Your task to perform on an android device: toggle data saver in the chrome app Image 0: 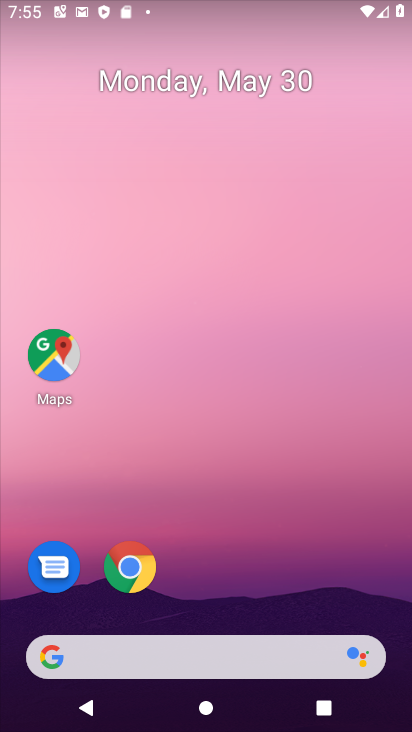
Step 0: click (133, 557)
Your task to perform on an android device: toggle data saver in the chrome app Image 1: 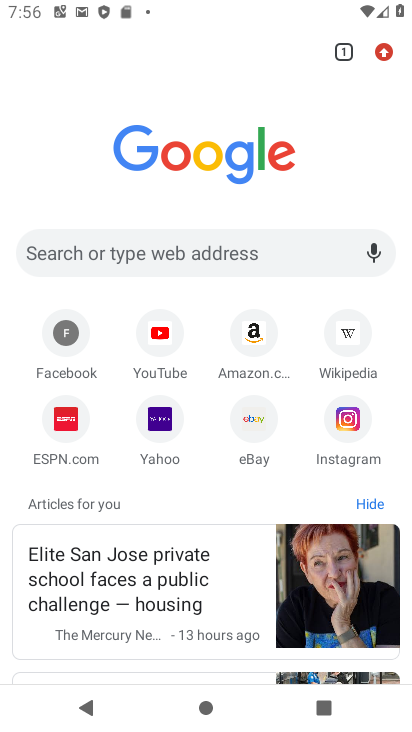
Step 1: press home button
Your task to perform on an android device: toggle data saver in the chrome app Image 2: 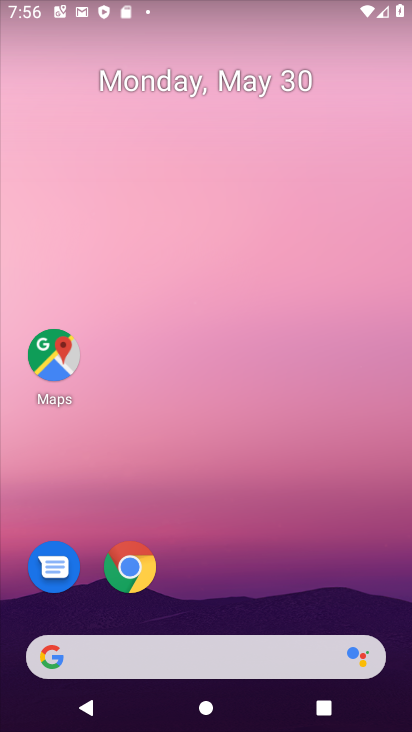
Step 2: click (119, 568)
Your task to perform on an android device: toggle data saver in the chrome app Image 3: 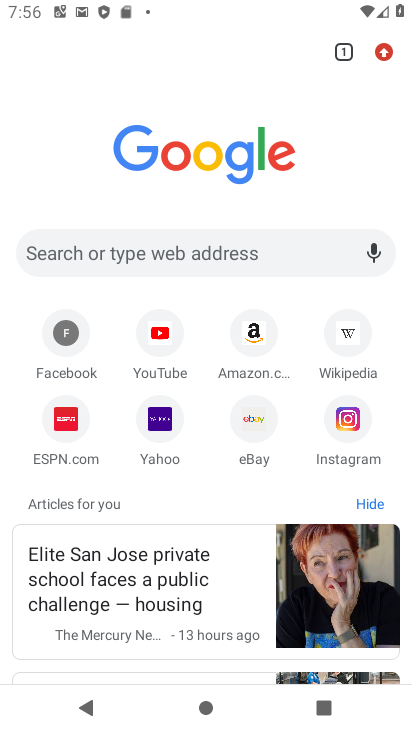
Step 3: click (387, 61)
Your task to perform on an android device: toggle data saver in the chrome app Image 4: 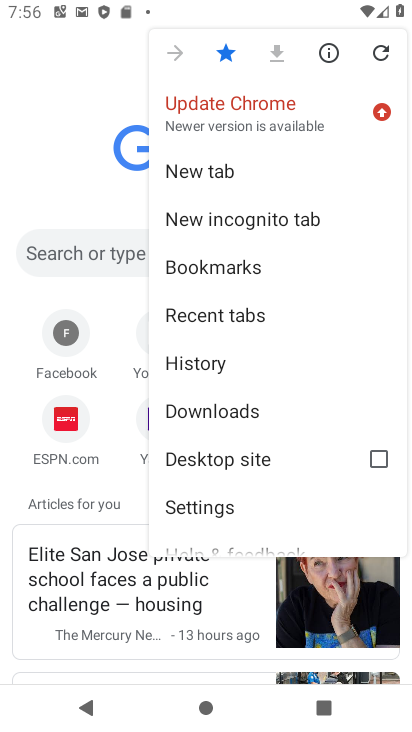
Step 4: click (244, 492)
Your task to perform on an android device: toggle data saver in the chrome app Image 5: 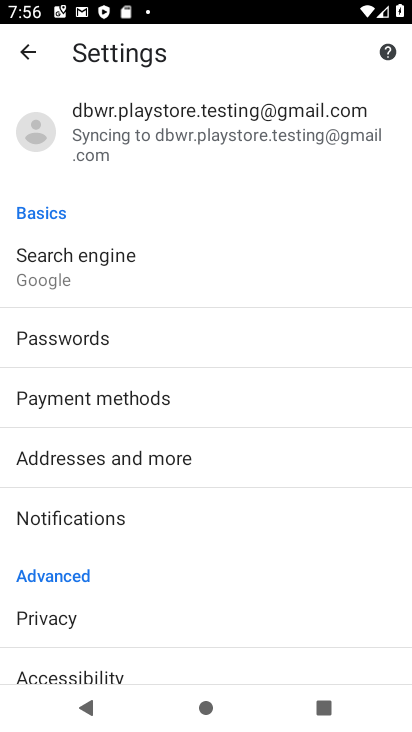
Step 5: drag from (184, 589) to (159, 180)
Your task to perform on an android device: toggle data saver in the chrome app Image 6: 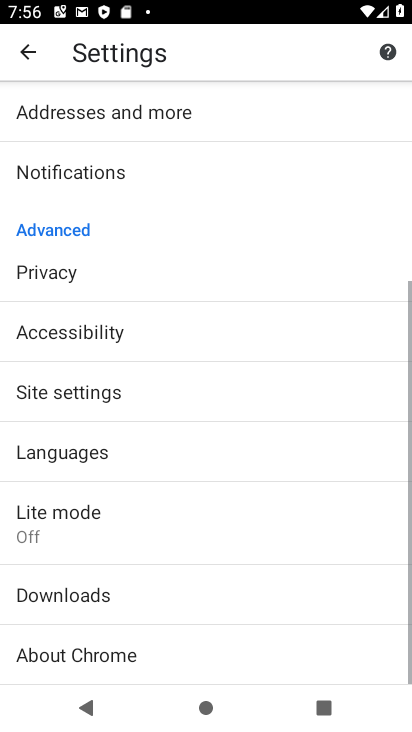
Step 6: click (169, 507)
Your task to perform on an android device: toggle data saver in the chrome app Image 7: 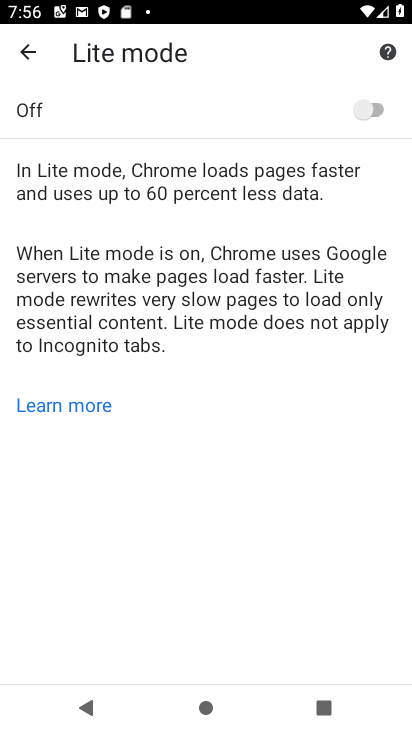
Step 7: click (369, 130)
Your task to perform on an android device: toggle data saver in the chrome app Image 8: 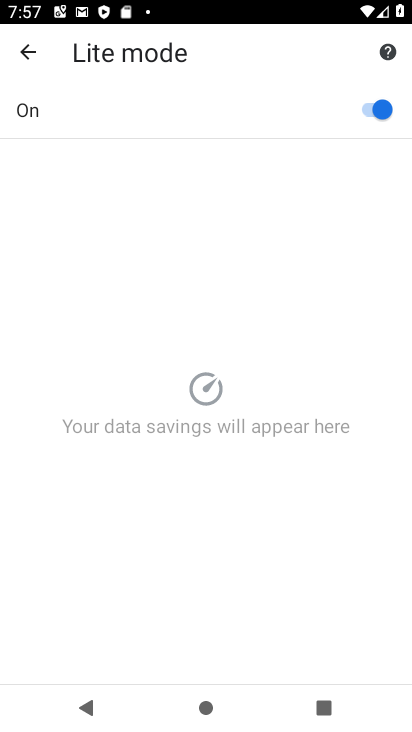
Step 8: task complete